Your task to perform on an android device: Show me the alarms in the clock app Image 0: 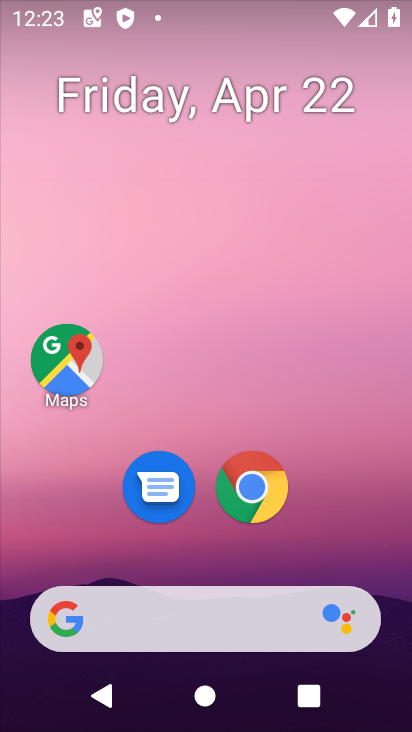
Step 0: drag from (188, 563) to (188, 133)
Your task to perform on an android device: Show me the alarms in the clock app Image 1: 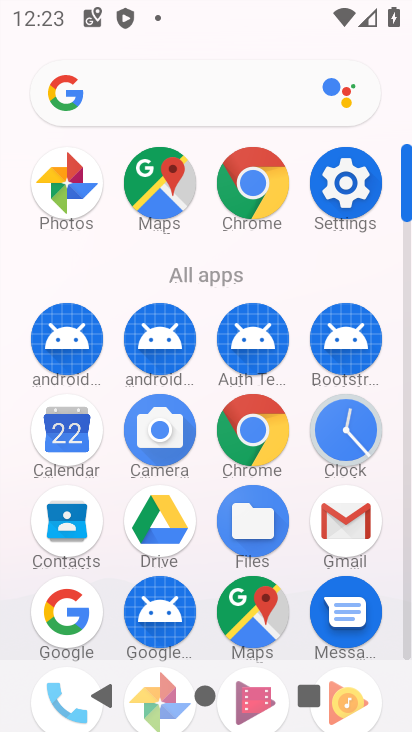
Step 1: click (355, 443)
Your task to perform on an android device: Show me the alarms in the clock app Image 2: 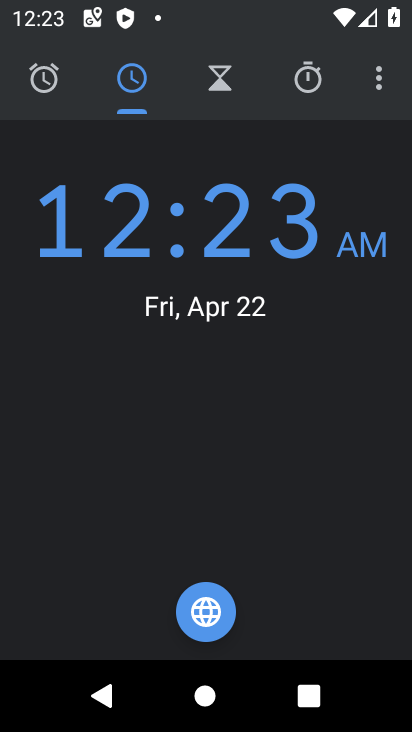
Step 2: click (53, 82)
Your task to perform on an android device: Show me the alarms in the clock app Image 3: 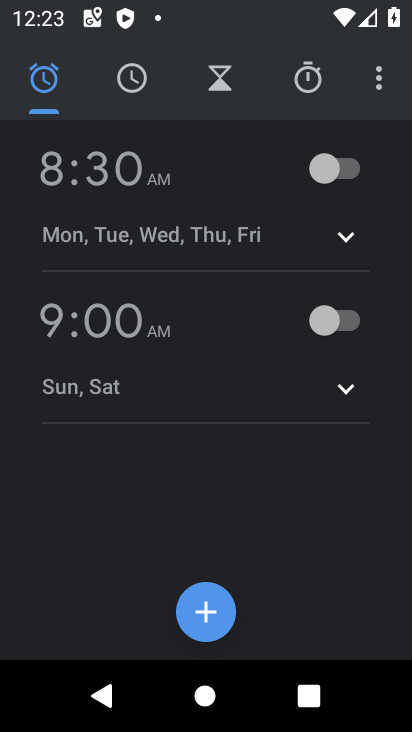
Step 3: click (138, 191)
Your task to perform on an android device: Show me the alarms in the clock app Image 4: 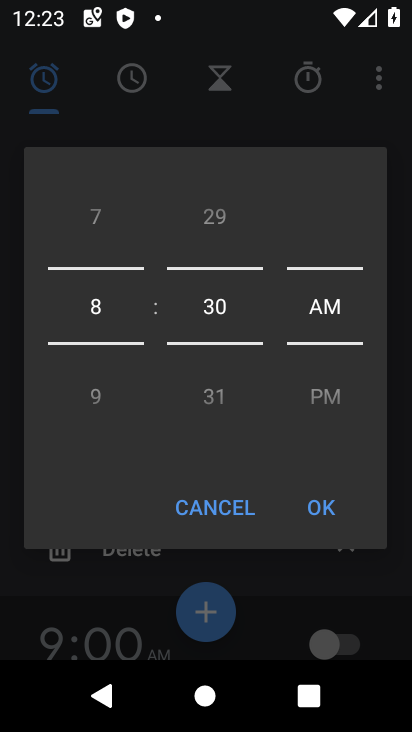
Step 4: task complete